Your task to perform on an android device: show emergency info Image 0: 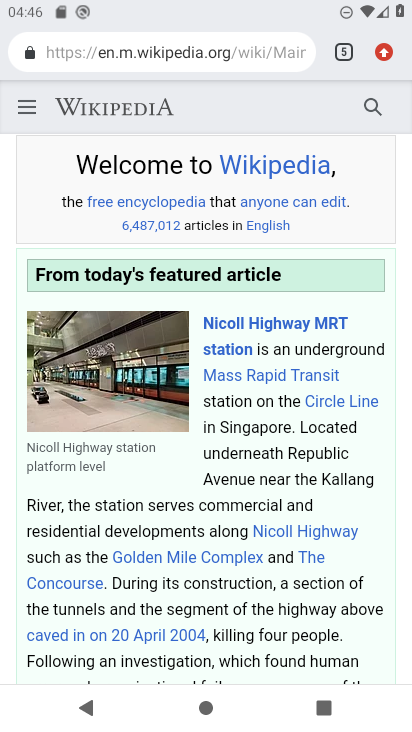
Step 0: drag from (244, 302) to (233, 543)
Your task to perform on an android device: show emergency info Image 1: 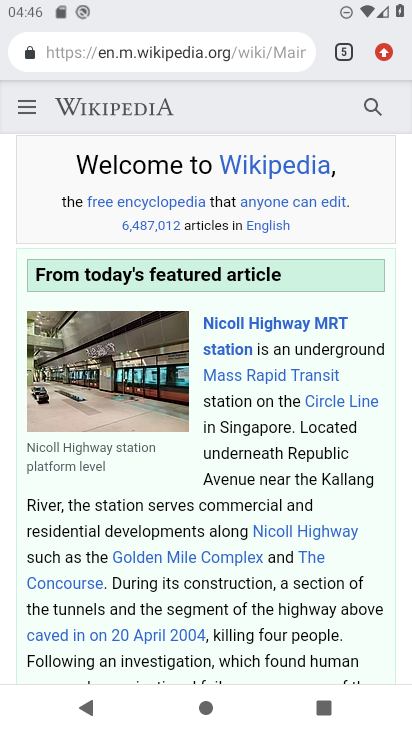
Step 1: drag from (162, 16) to (226, 631)
Your task to perform on an android device: show emergency info Image 2: 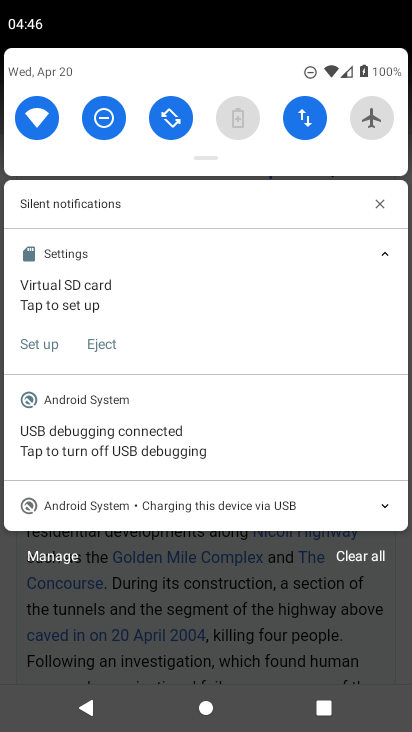
Step 2: drag from (220, 61) to (242, 591)
Your task to perform on an android device: show emergency info Image 3: 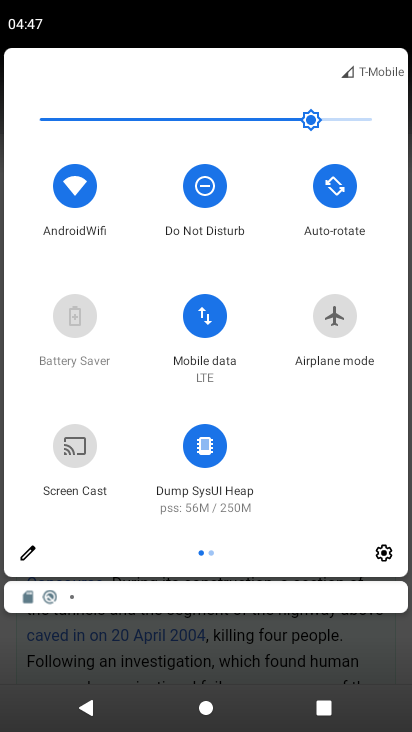
Step 3: click (390, 548)
Your task to perform on an android device: show emergency info Image 4: 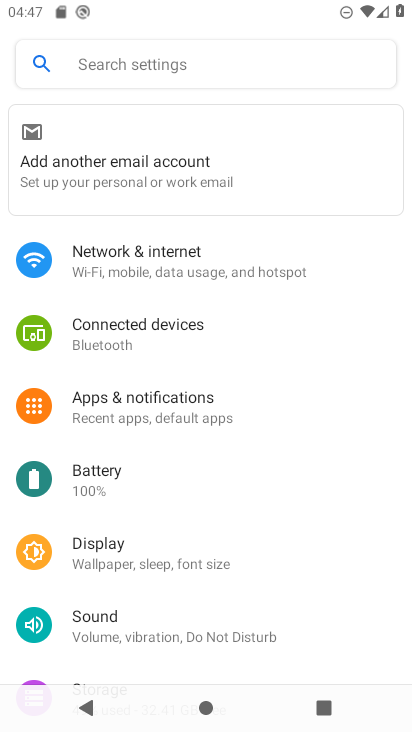
Step 4: drag from (82, 641) to (205, 96)
Your task to perform on an android device: show emergency info Image 5: 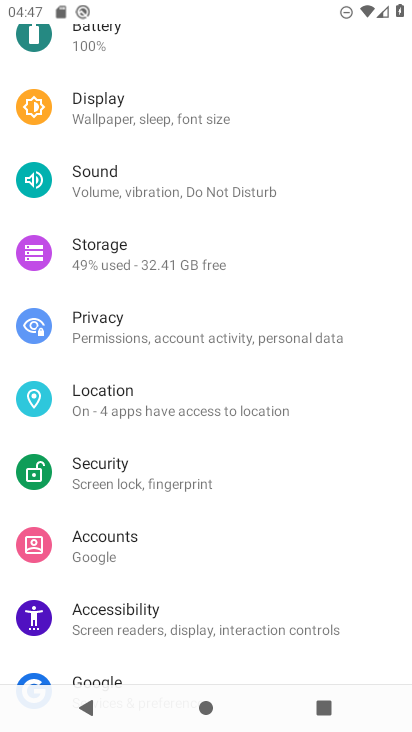
Step 5: drag from (141, 516) to (266, 14)
Your task to perform on an android device: show emergency info Image 6: 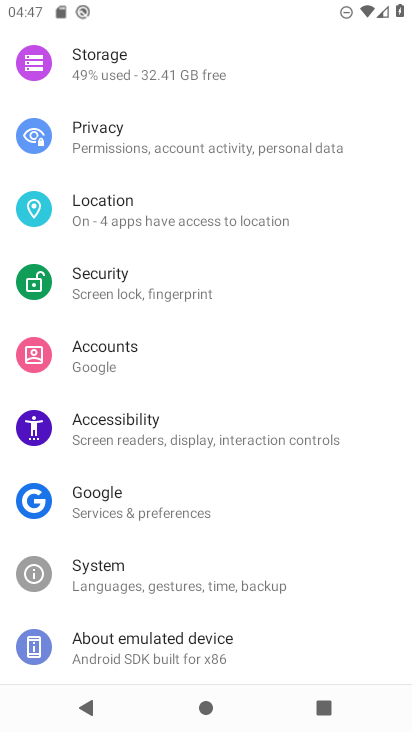
Step 6: drag from (74, 632) to (148, 106)
Your task to perform on an android device: show emergency info Image 7: 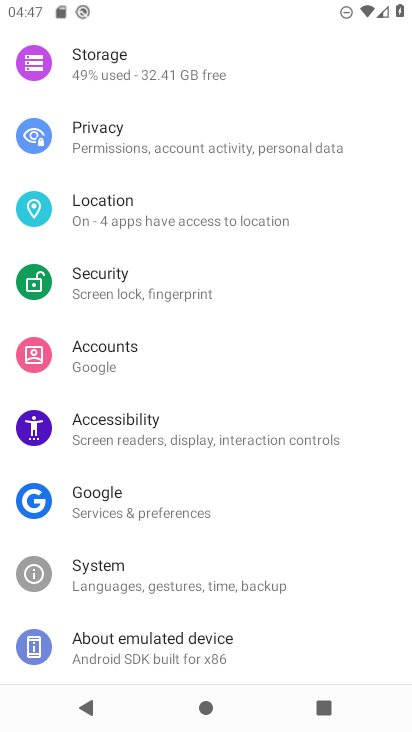
Step 7: drag from (115, 575) to (196, 273)
Your task to perform on an android device: show emergency info Image 8: 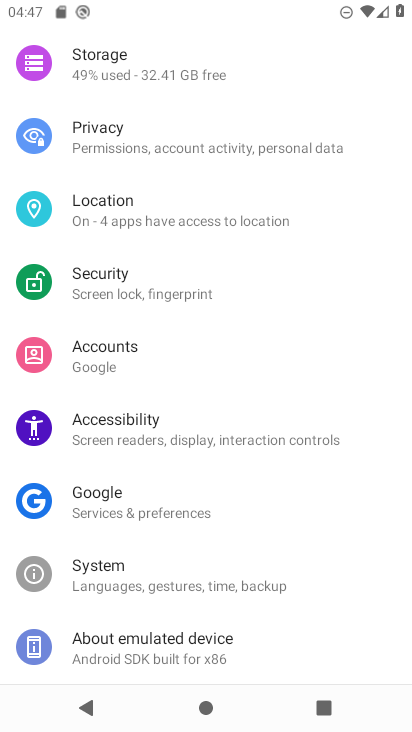
Step 8: click (187, 667)
Your task to perform on an android device: show emergency info Image 9: 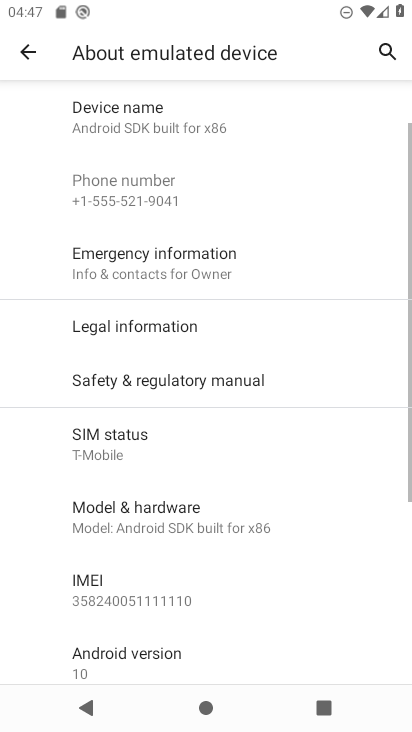
Step 9: click (156, 282)
Your task to perform on an android device: show emergency info Image 10: 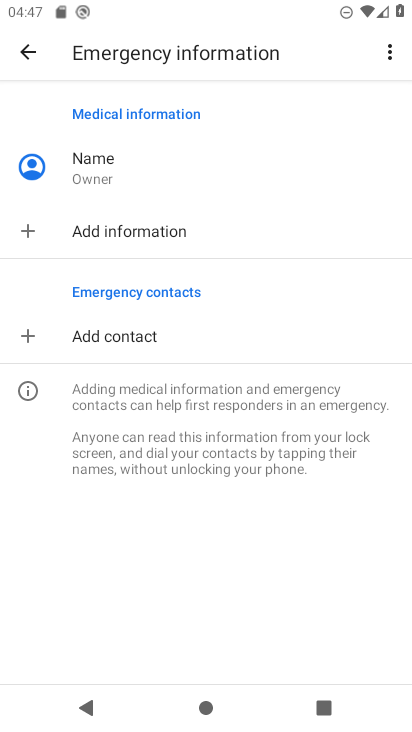
Step 10: task complete